Your task to perform on an android device: see tabs open on other devices in the chrome app Image 0: 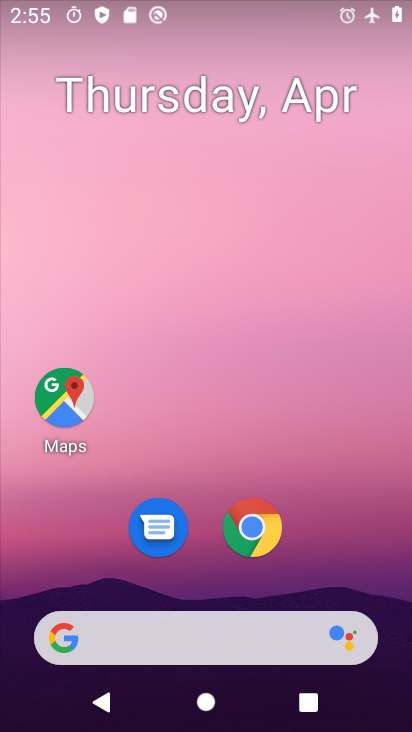
Step 0: click (259, 520)
Your task to perform on an android device: see tabs open on other devices in the chrome app Image 1: 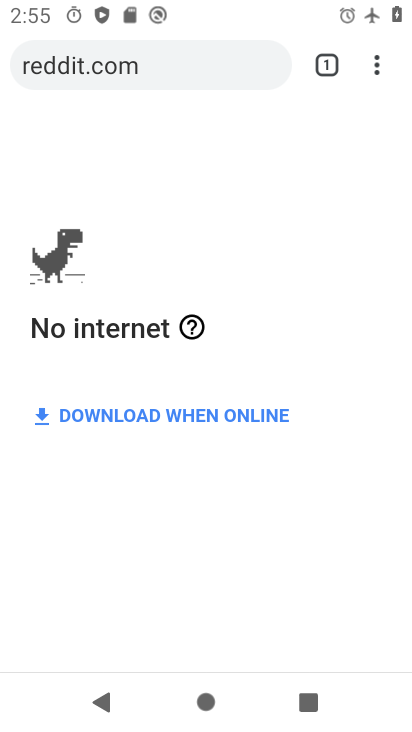
Step 1: task complete